Your task to perform on an android device: Go to CNN.com Image 0: 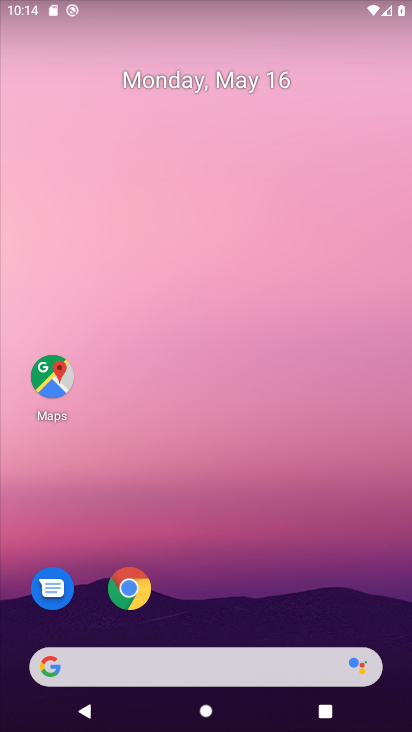
Step 0: click (129, 581)
Your task to perform on an android device: Go to CNN.com Image 1: 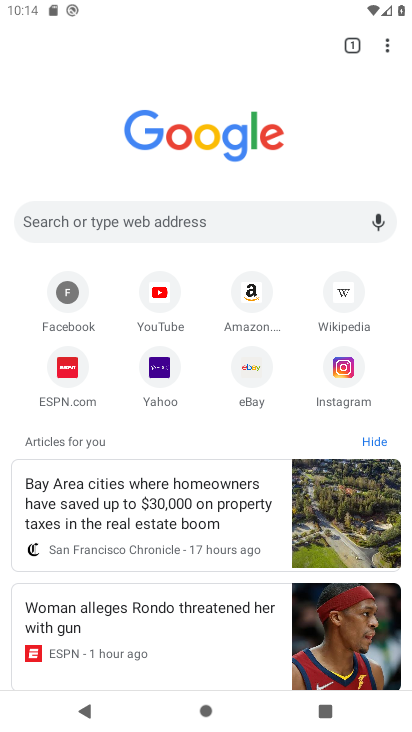
Step 1: click (144, 219)
Your task to perform on an android device: Go to CNN.com Image 2: 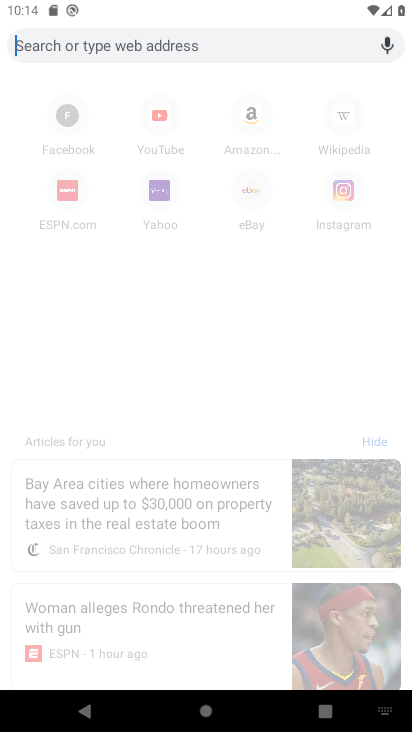
Step 2: type "cnn.com"
Your task to perform on an android device: Go to CNN.com Image 3: 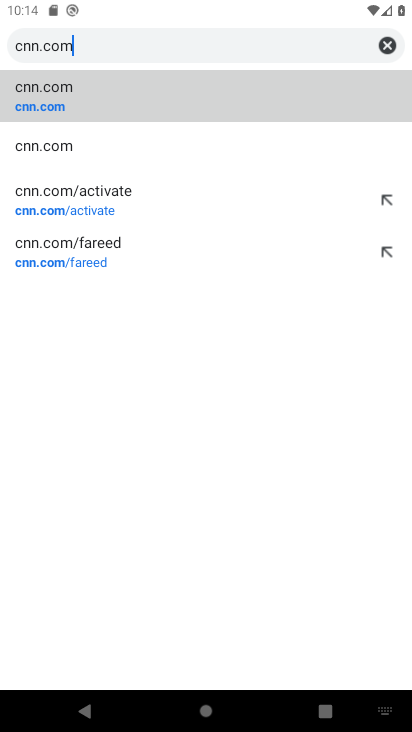
Step 3: click (89, 100)
Your task to perform on an android device: Go to CNN.com Image 4: 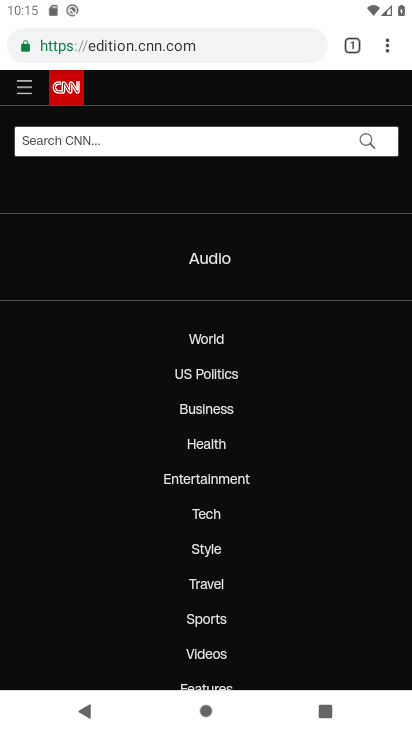
Step 4: task complete